Your task to perform on an android device: allow cookies in the chrome app Image 0: 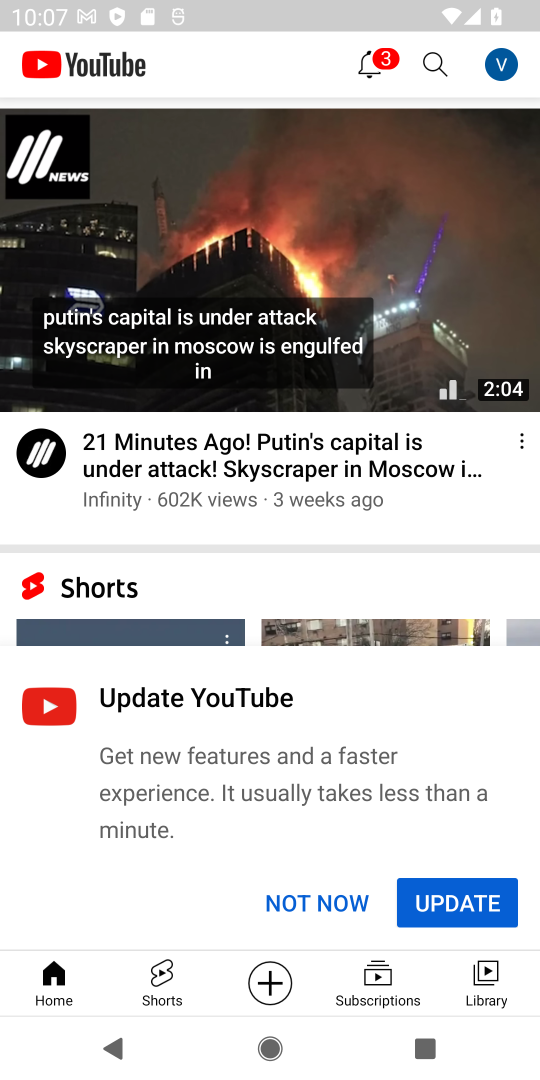
Step 0: press home button
Your task to perform on an android device: allow cookies in the chrome app Image 1: 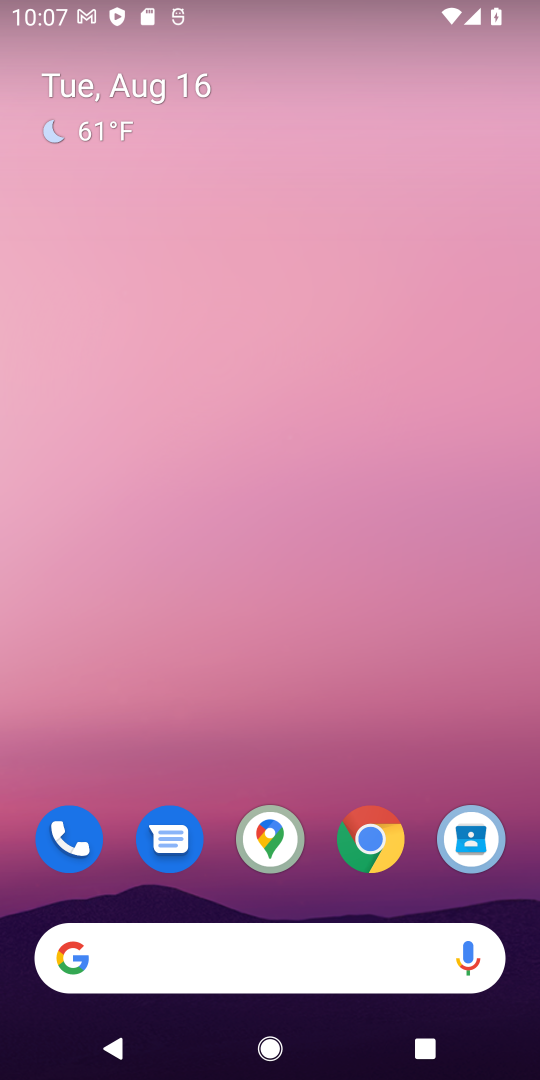
Step 1: click (364, 855)
Your task to perform on an android device: allow cookies in the chrome app Image 2: 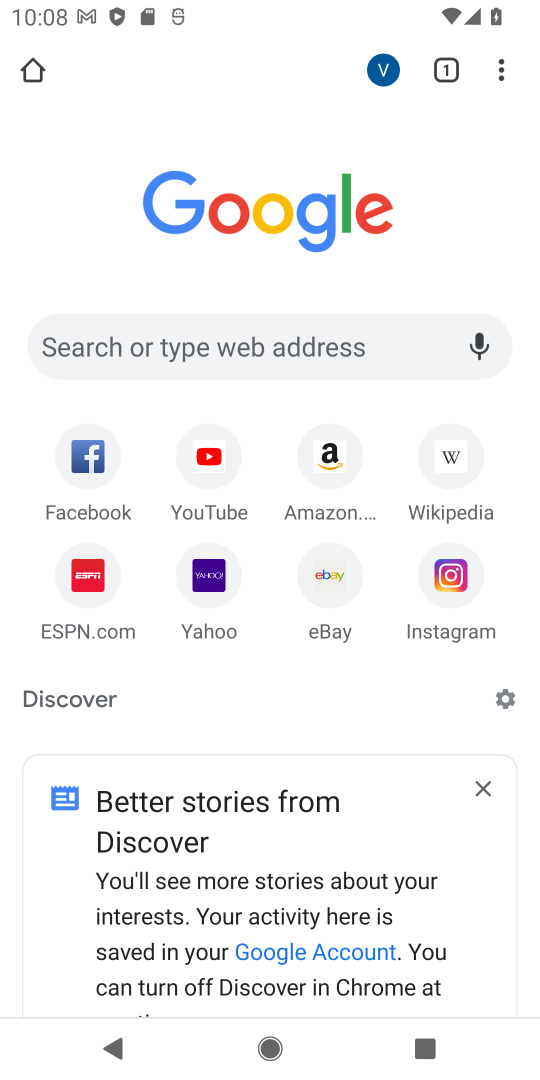
Step 2: click (492, 60)
Your task to perform on an android device: allow cookies in the chrome app Image 3: 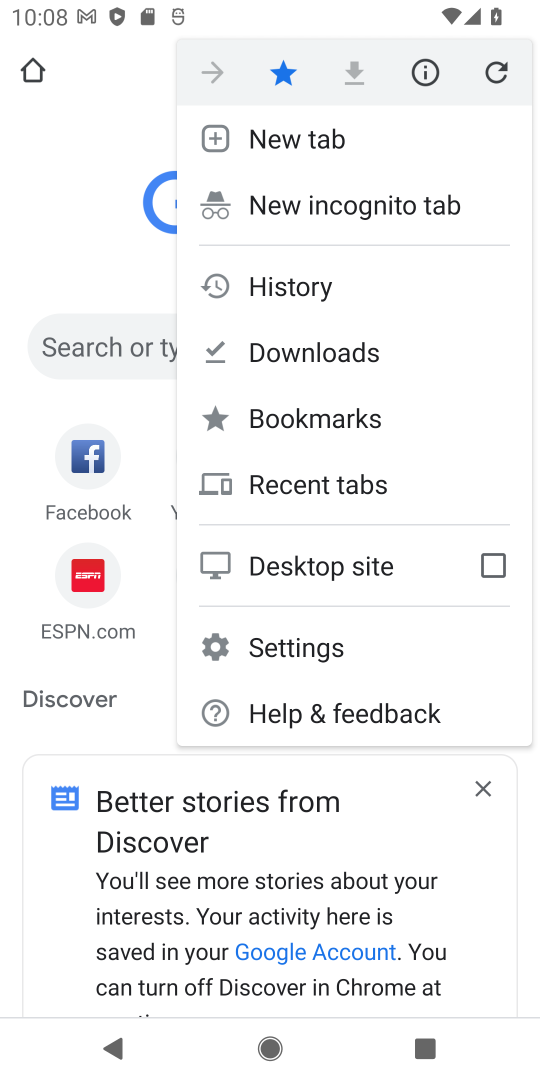
Step 3: click (291, 643)
Your task to perform on an android device: allow cookies in the chrome app Image 4: 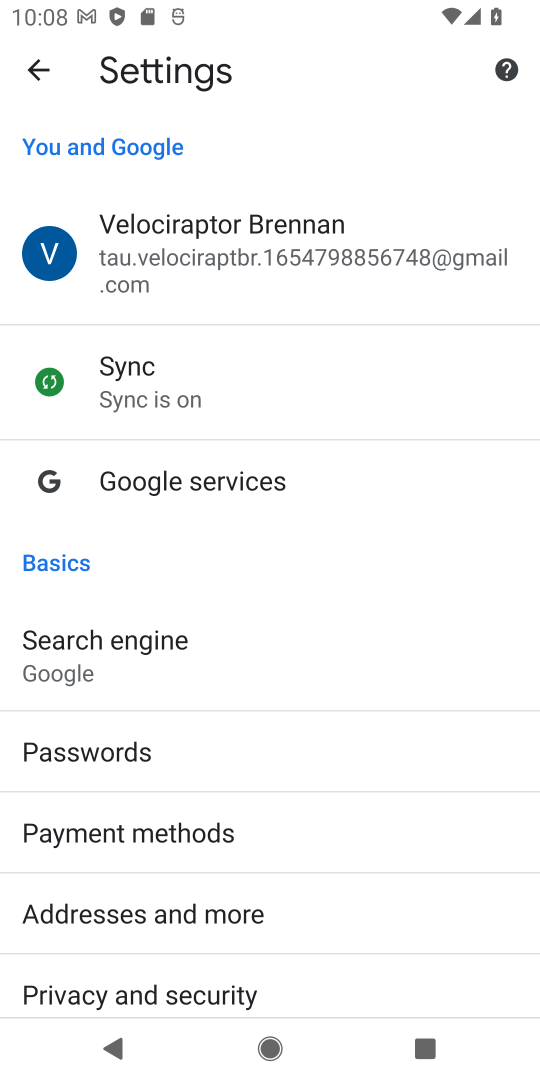
Step 4: drag from (236, 610) to (238, 237)
Your task to perform on an android device: allow cookies in the chrome app Image 5: 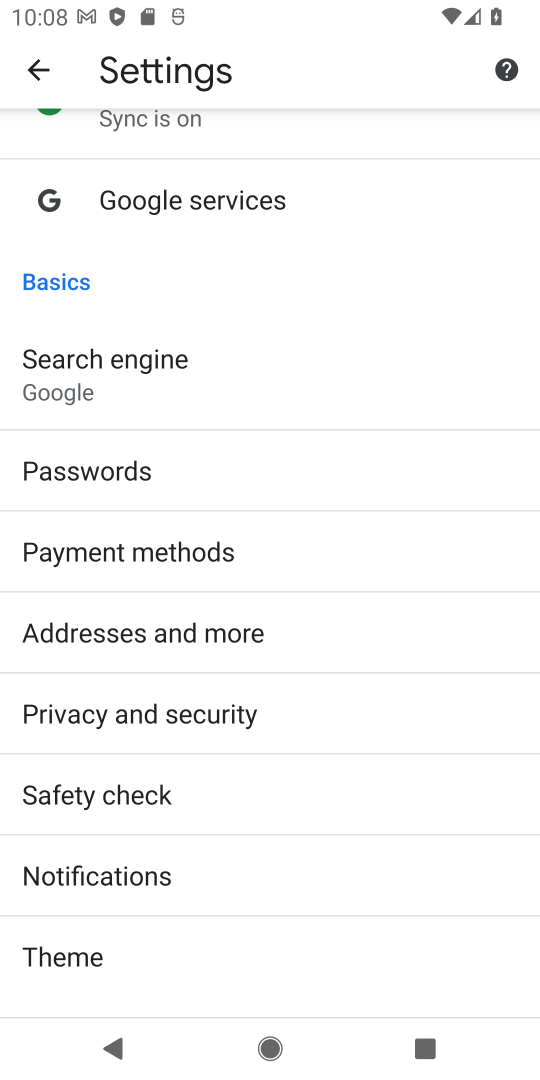
Step 5: drag from (136, 819) to (211, 288)
Your task to perform on an android device: allow cookies in the chrome app Image 6: 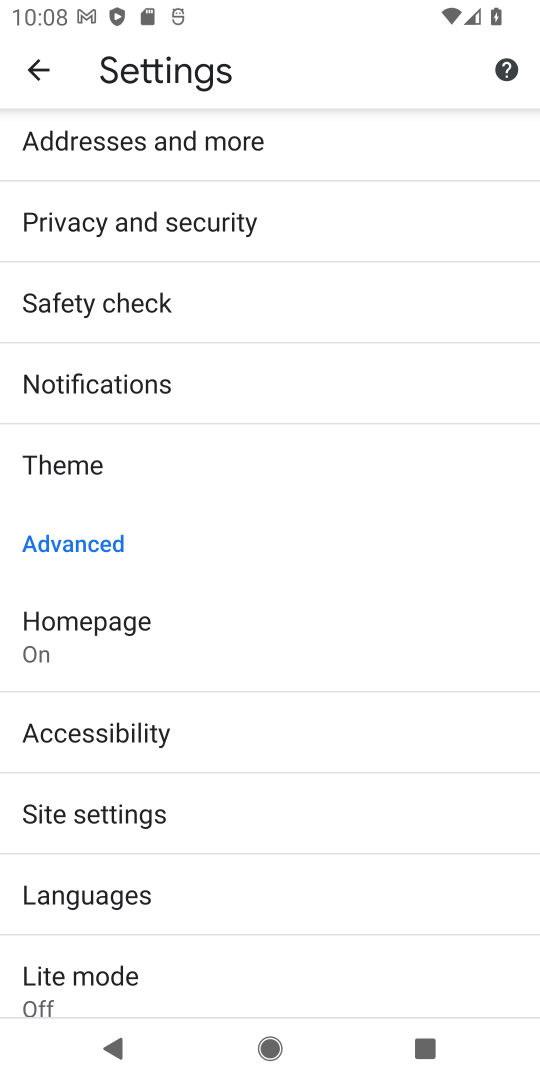
Step 6: click (114, 811)
Your task to perform on an android device: allow cookies in the chrome app Image 7: 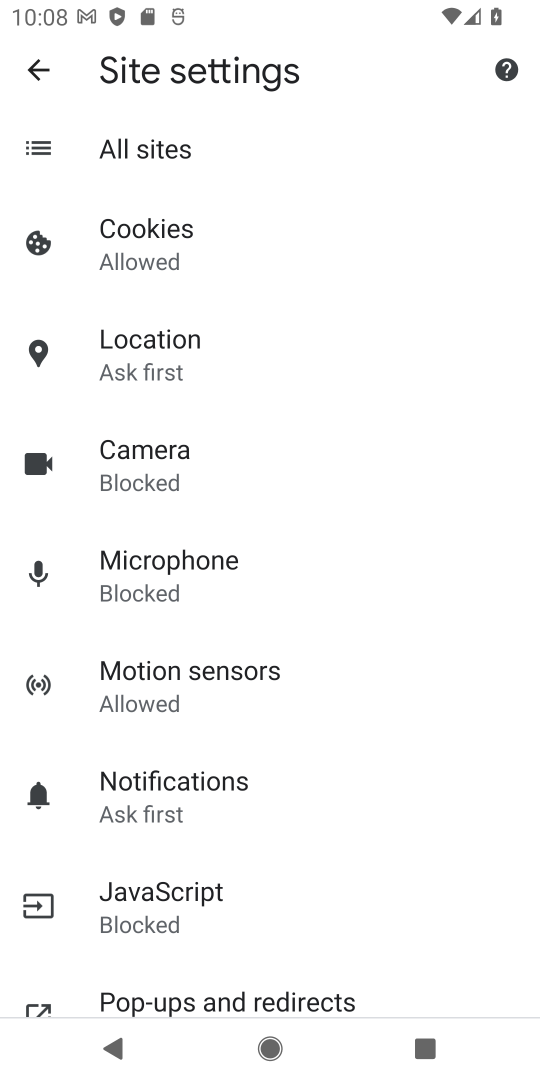
Step 7: drag from (182, 771) to (142, 892)
Your task to perform on an android device: allow cookies in the chrome app Image 8: 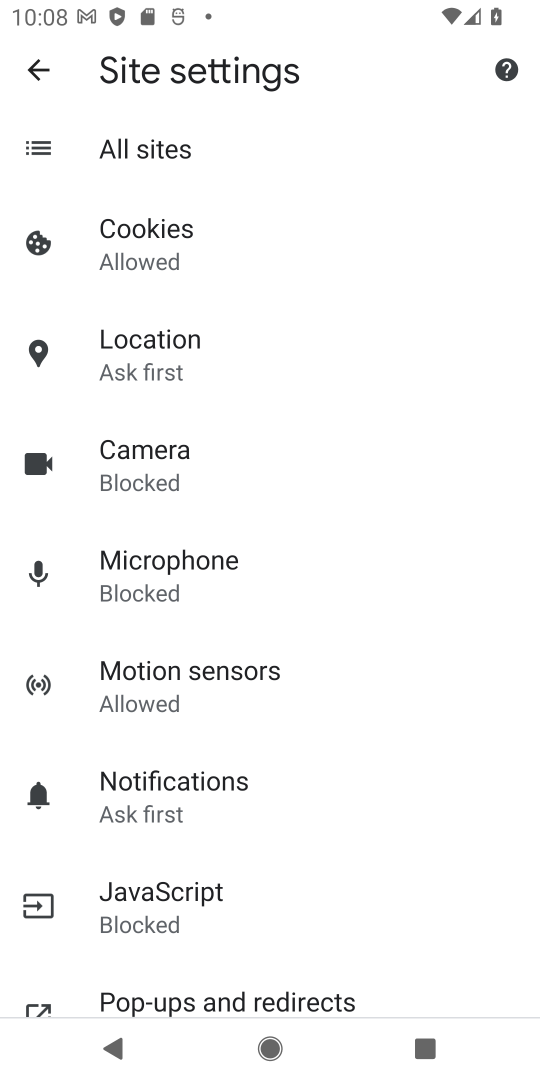
Step 8: click (156, 244)
Your task to perform on an android device: allow cookies in the chrome app Image 9: 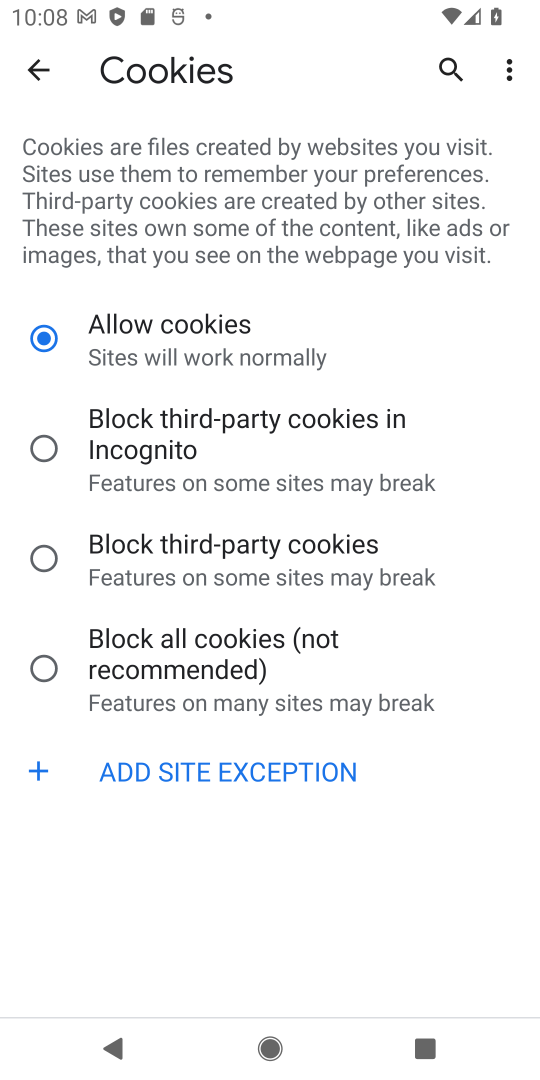
Step 9: task complete